Your task to perform on an android device: Open Youtube and go to the subscriptions tab Image 0: 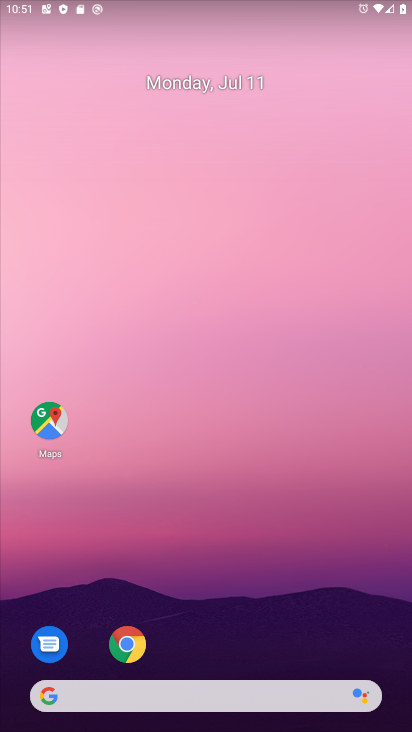
Step 0: press home button
Your task to perform on an android device: Open Youtube and go to the subscriptions tab Image 1: 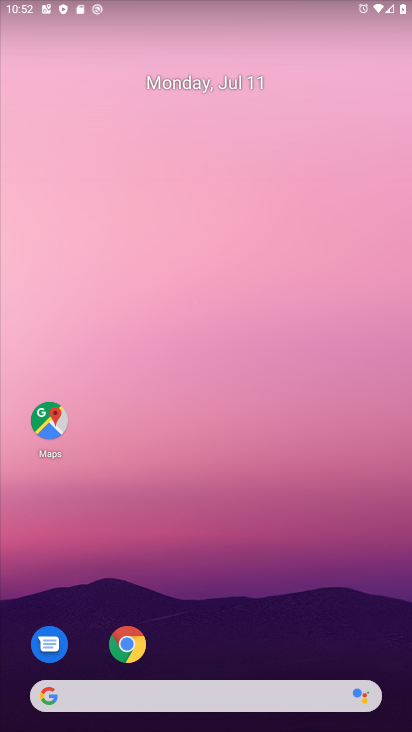
Step 1: drag from (205, 659) to (211, 8)
Your task to perform on an android device: Open Youtube and go to the subscriptions tab Image 2: 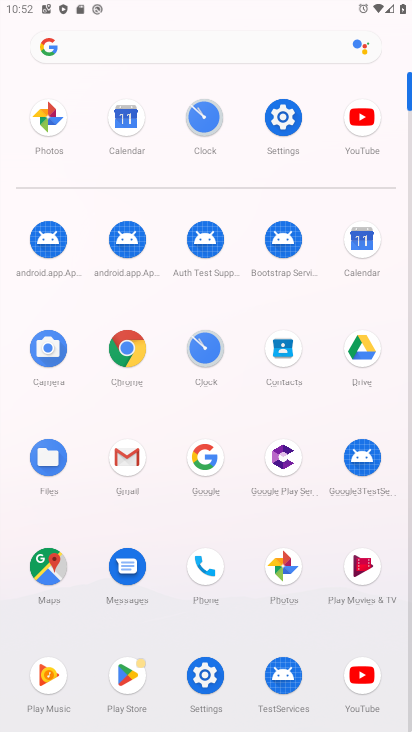
Step 2: click (360, 669)
Your task to perform on an android device: Open Youtube and go to the subscriptions tab Image 3: 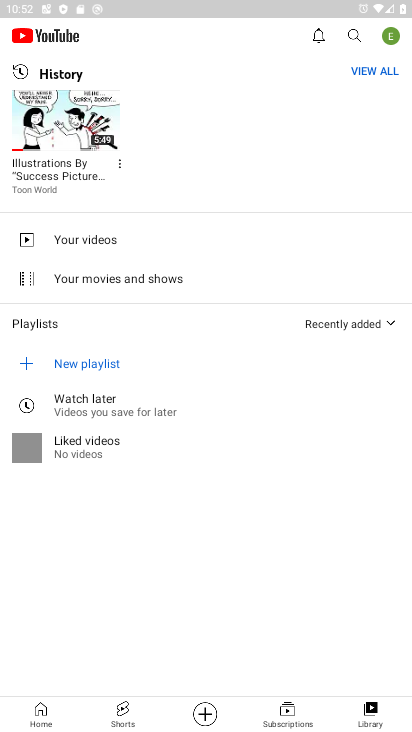
Step 3: click (283, 706)
Your task to perform on an android device: Open Youtube and go to the subscriptions tab Image 4: 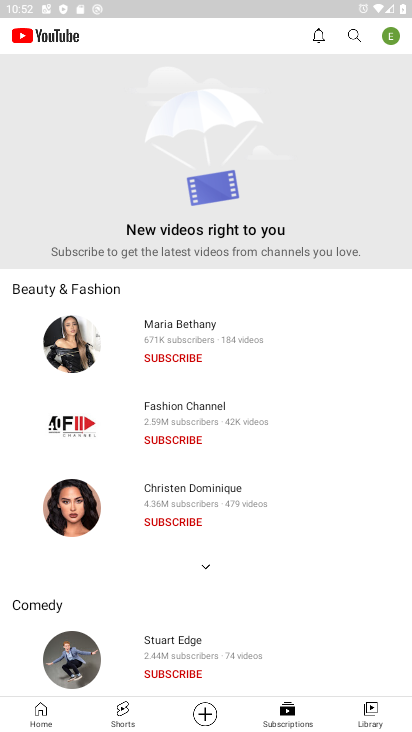
Step 4: task complete